Your task to perform on an android device: Toggle the flashlight Image 0: 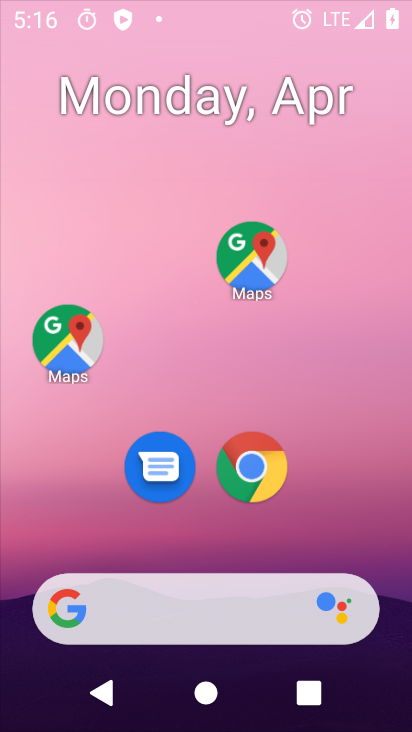
Step 0: click (313, 15)
Your task to perform on an android device: Toggle the flashlight Image 1: 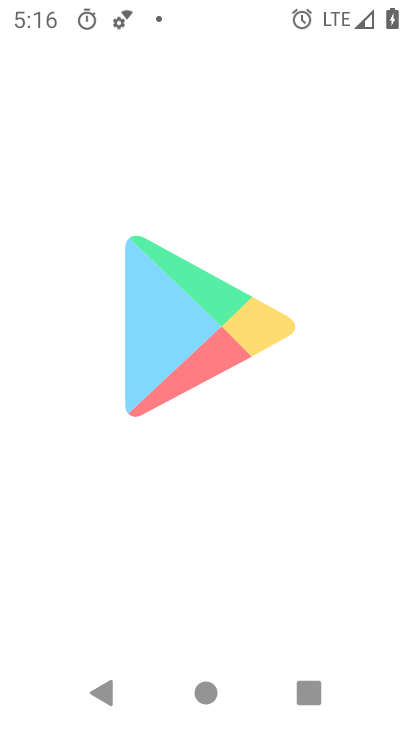
Step 1: task complete